Your task to perform on an android device: toggle pop-ups in chrome Image 0: 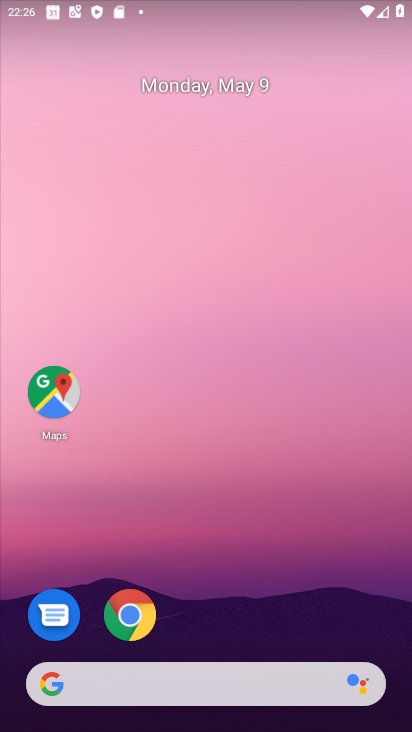
Step 0: click (125, 620)
Your task to perform on an android device: toggle pop-ups in chrome Image 1: 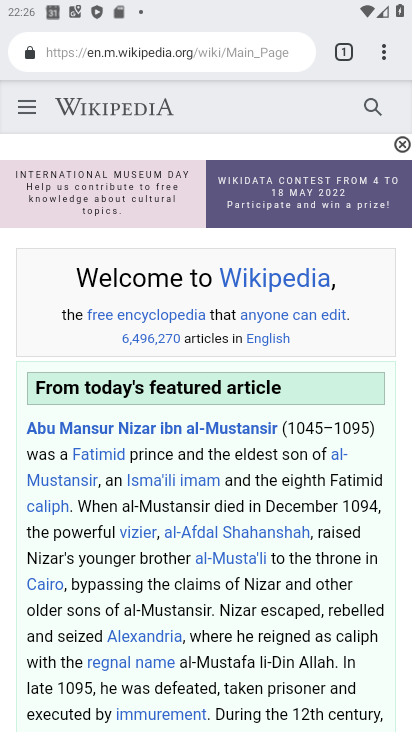
Step 1: click (386, 52)
Your task to perform on an android device: toggle pop-ups in chrome Image 2: 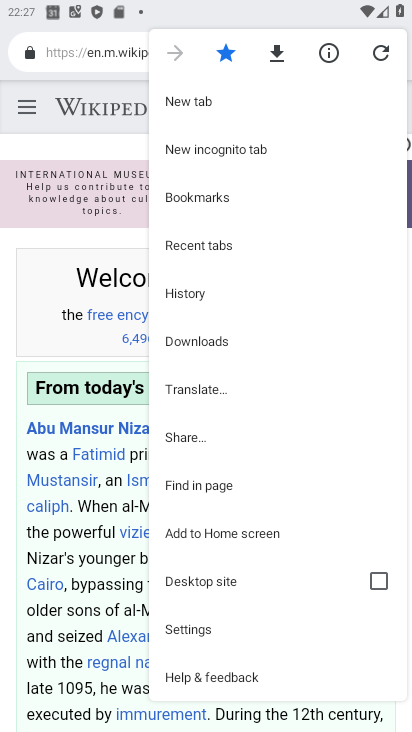
Step 2: click (213, 634)
Your task to perform on an android device: toggle pop-ups in chrome Image 3: 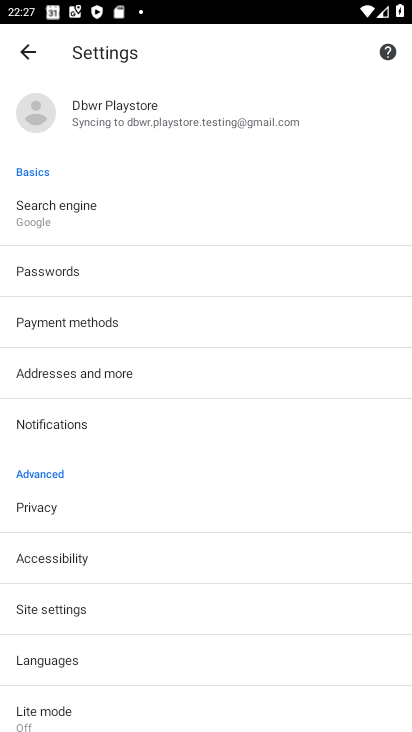
Step 3: click (97, 610)
Your task to perform on an android device: toggle pop-ups in chrome Image 4: 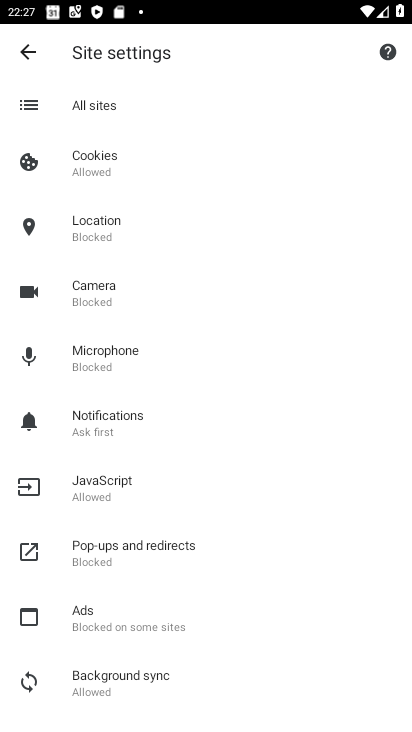
Step 4: click (152, 564)
Your task to perform on an android device: toggle pop-ups in chrome Image 5: 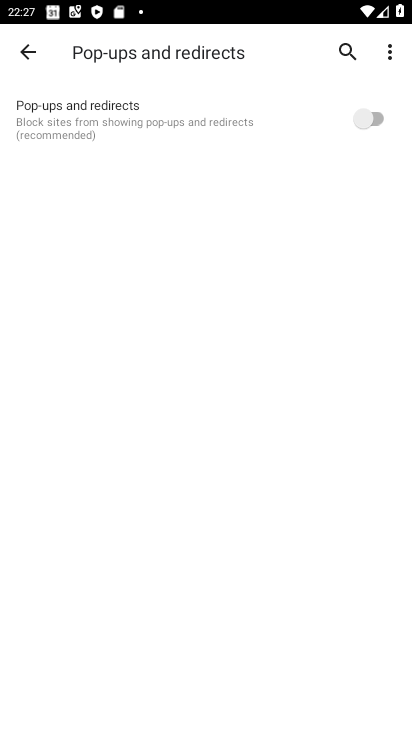
Step 5: click (375, 120)
Your task to perform on an android device: toggle pop-ups in chrome Image 6: 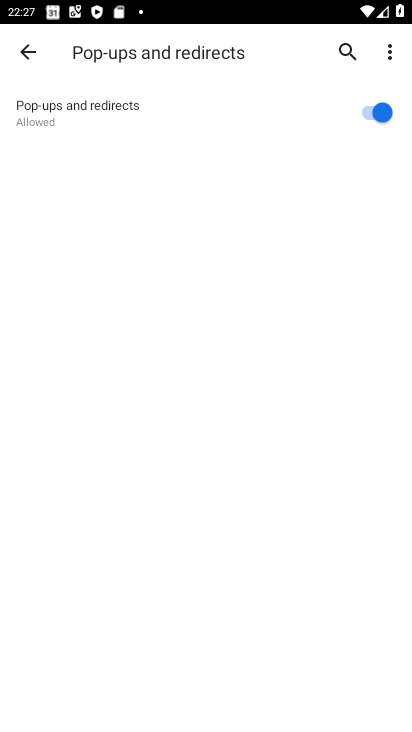
Step 6: task complete